Your task to perform on an android device: Turn off the flashlight Image 0: 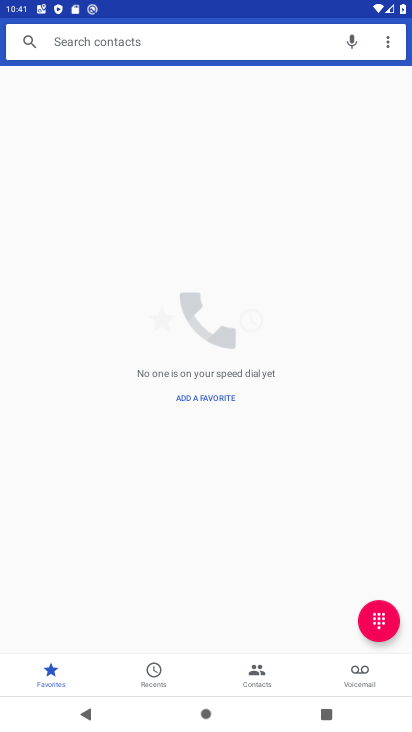
Step 0: press home button
Your task to perform on an android device: Turn off the flashlight Image 1: 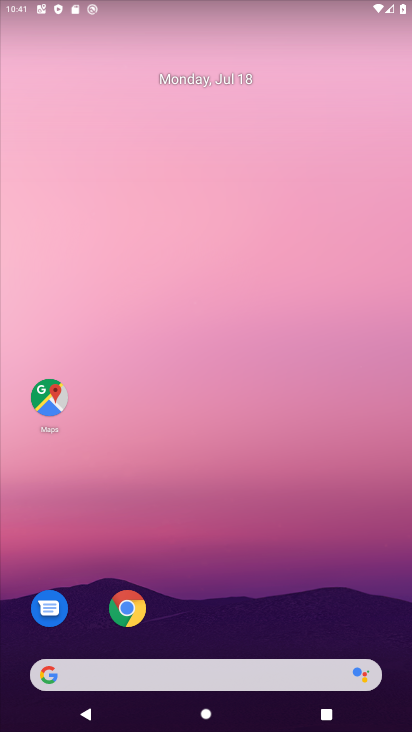
Step 1: drag from (239, 624) to (217, 73)
Your task to perform on an android device: Turn off the flashlight Image 2: 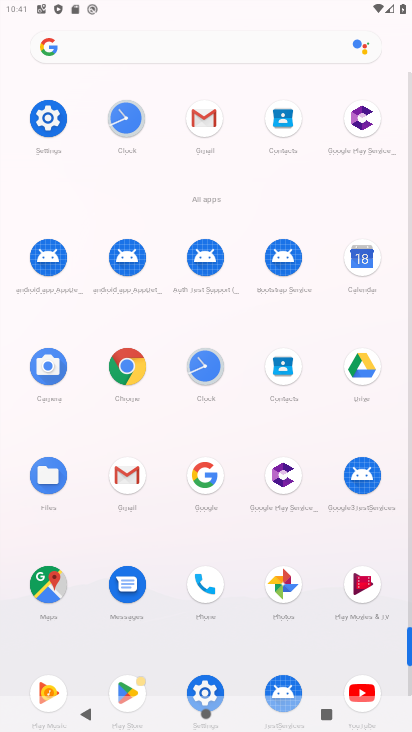
Step 2: click (206, 681)
Your task to perform on an android device: Turn off the flashlight Image 3: 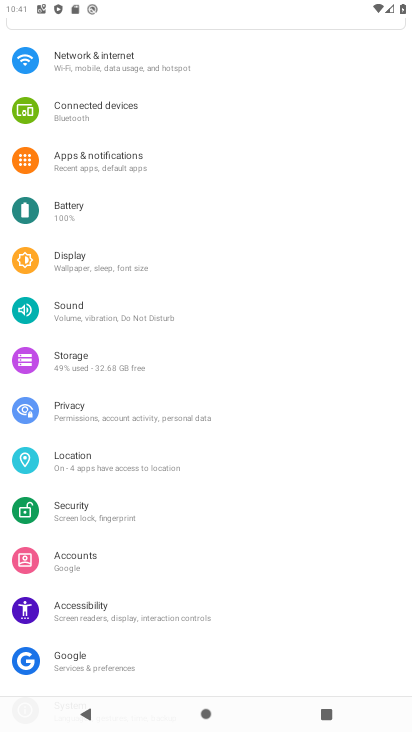
Step 3: drag from (223, 116) to (239, 535)
Your task to perform on an android device: Turn off the flashlight Image 4: 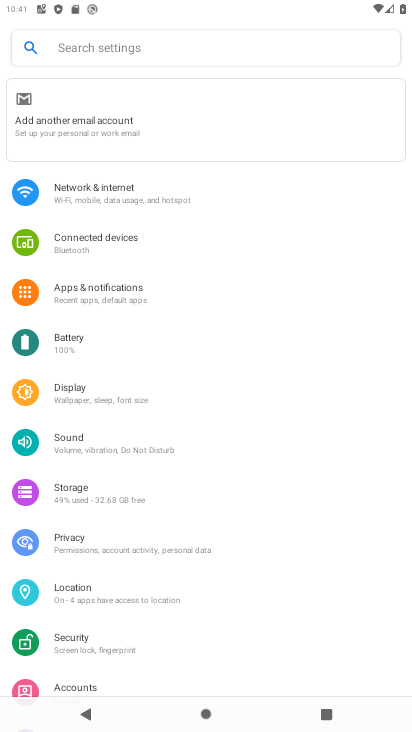
Step 4: click (166, 50)
Your task to perform on an android device: Turn off the flashlight Image 5: 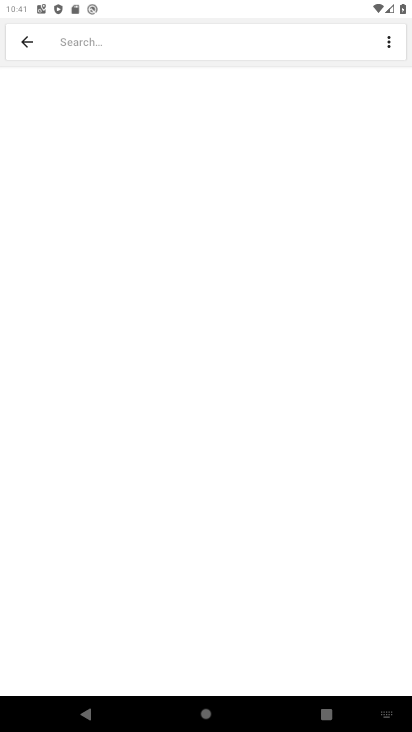
Step 5: type "flashlight"
Your task to perform on an android device: Turn off the flashlight Image 6: 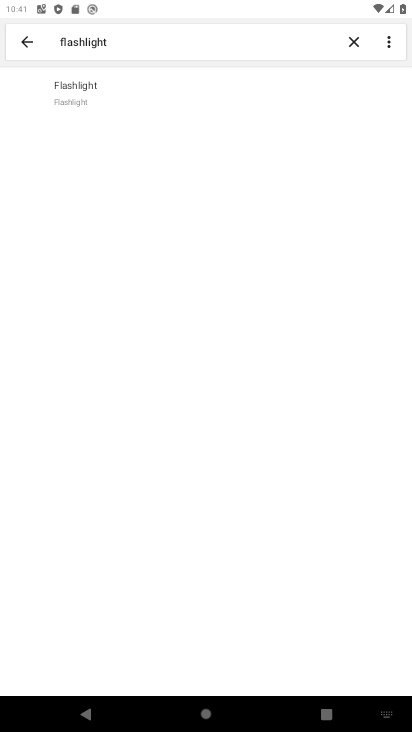
Step 6: click (133, 130)
Your task to perform on an android device: Turn off the flashlight Image 7: 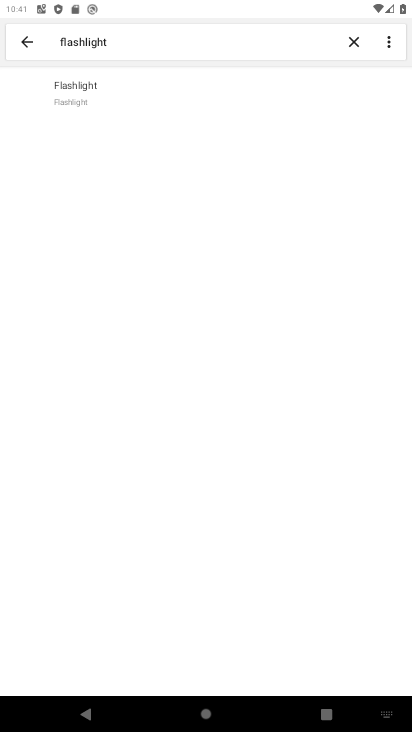
Step 7: click (98, 93)
Your task to perform on an android device: Turn off the flashlight Image 8: 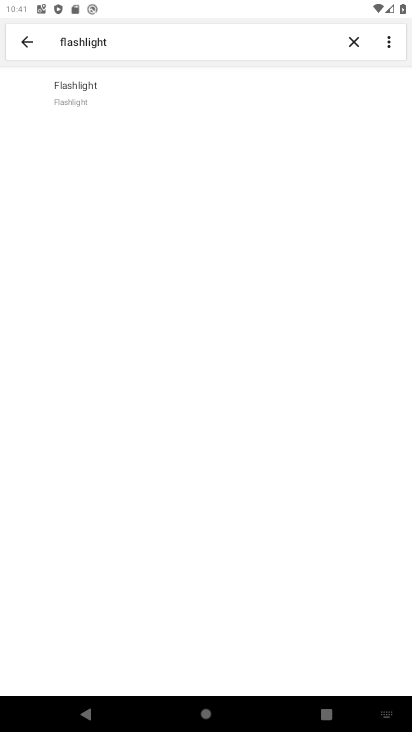
Step 8: click (99, 92)
Your task to perform on an android device: Turn off the flashlight Image 9: 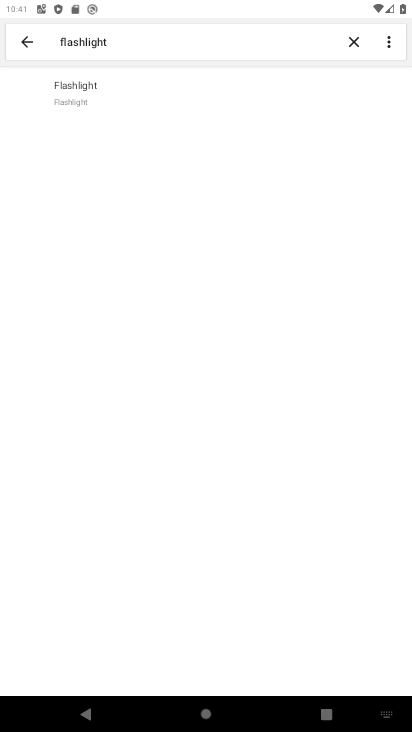
Step 9: task complete